Your task to perform on an android device: toggle translation in the chrome app Image 0: 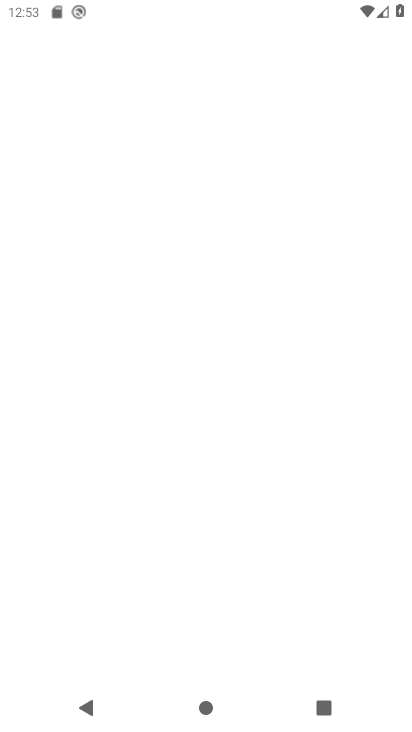
Step 0: drag from (225, 585) to (196, 180)
Your task to perform on an android device: toggle translation in the chrome app Image 1: 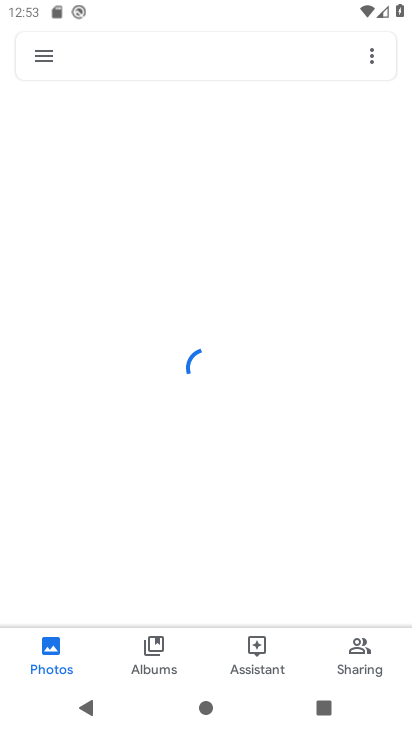
Step 1: press home button
Your task to perform on an android device: toggle translation in the chrome app Image 2: 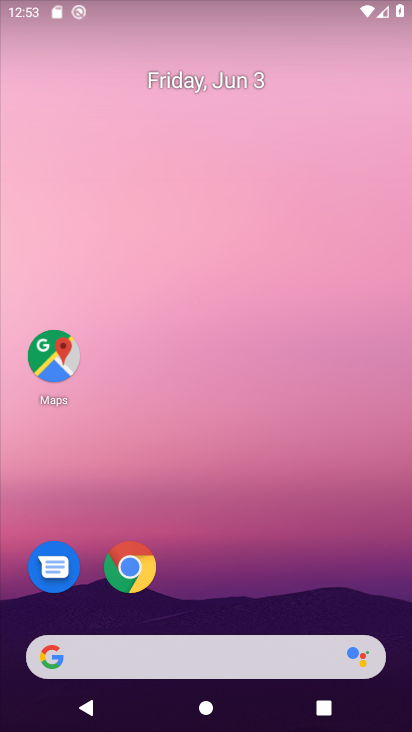
Step 2: drag from (216, 611) to (215, 293)
Your task to perform on an android device: toggle translation in the chrome app Image 3: 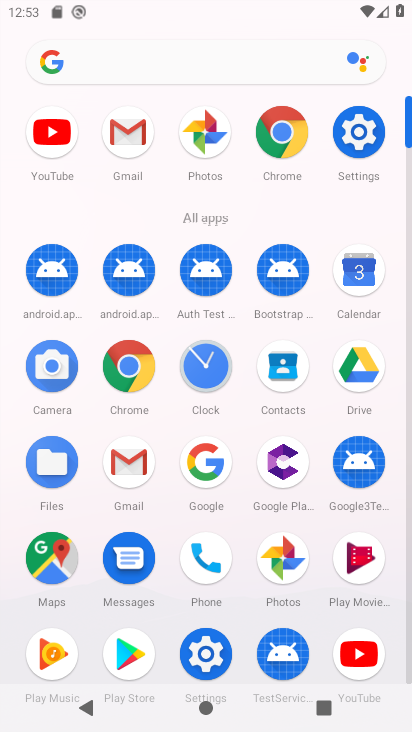
Step 3: click (282, 123)
Your task to perform on an android device: toggle translation in the chrome app Image 4: 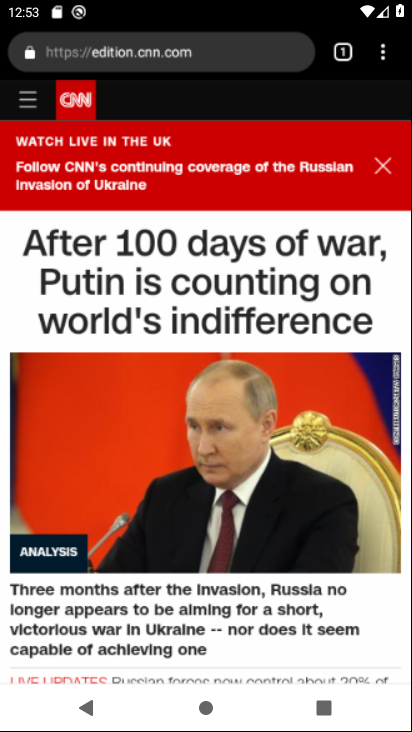
Step 4: click (390, 46)
Your task to perform on an android device: toggle translation in the chrome app Image 5: 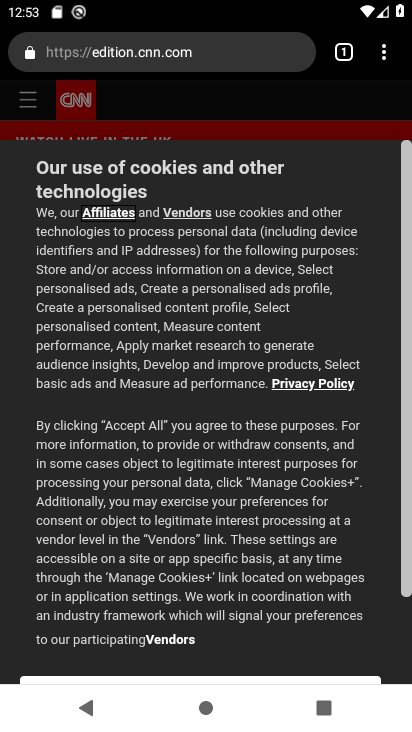
Step 5: click (391, 41)
Your task to perform on an android device: toggle translation in the chrome app Image 6: 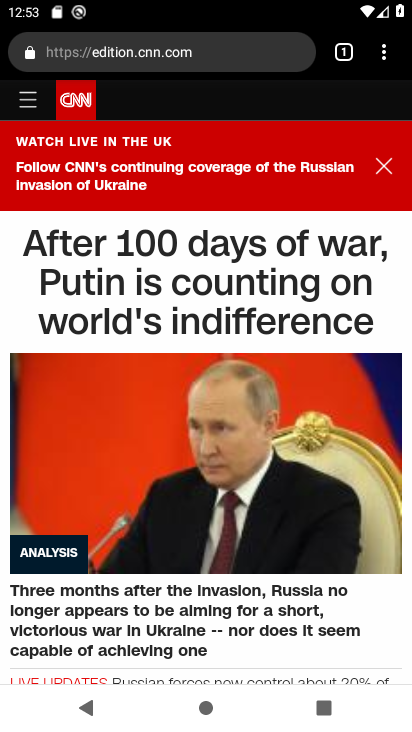
Step 6: click (378, 52)
Your task to perform on an android device: toggle translation in the chrome app Image 7: 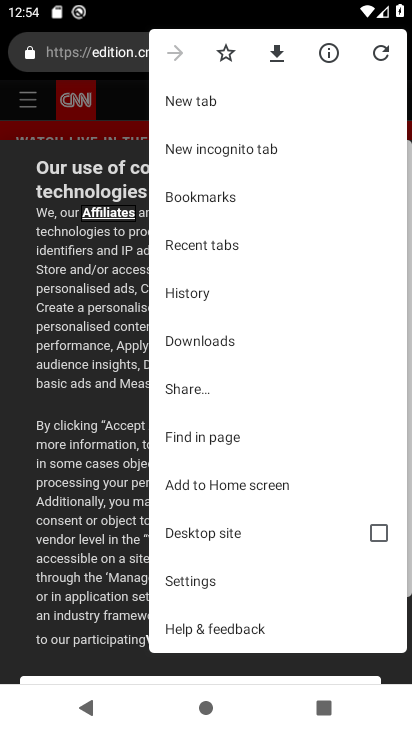
Step 7: click (211, 572)
Your task to perform on an android device: toggle translation in the chrome app Image 8: 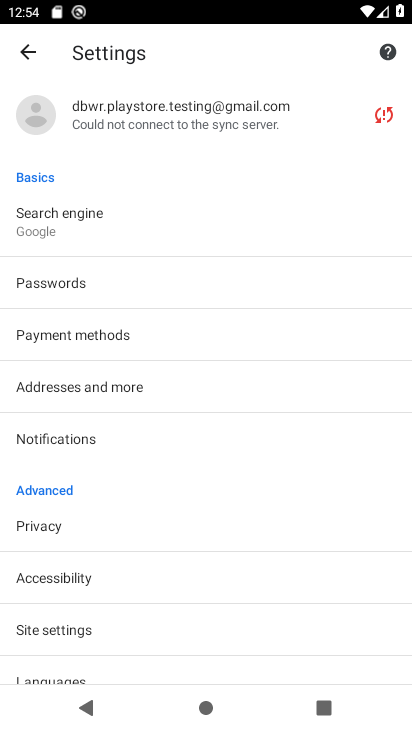
Step 8: drag from (168, 552) to (211, 223)
Your task to perform on an android device: toggle translation in the chrome app Image 9: 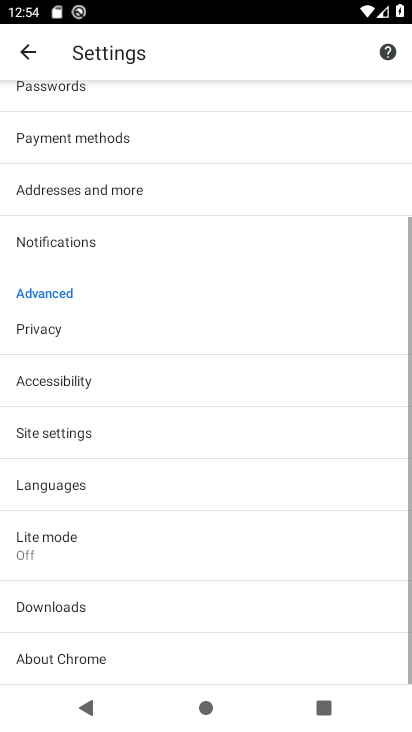
Step 9: click (138, 474)
Your task to perform on an android device: toggle translation in the chrome app Image 10: 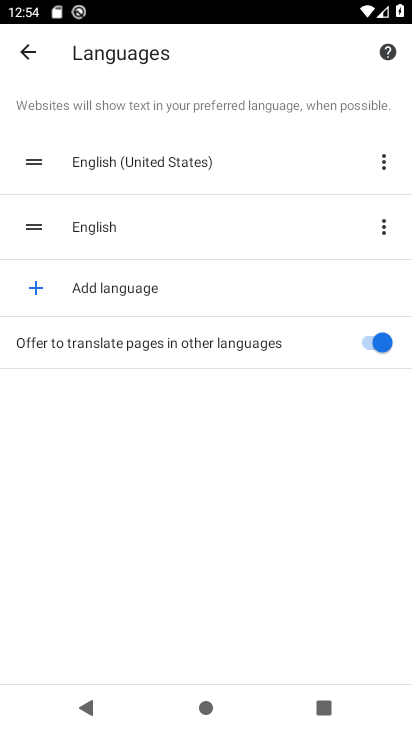
Step 10: click (366, 336)
Your task to perform on an android device: toggle translation in the chrome app Image 11: 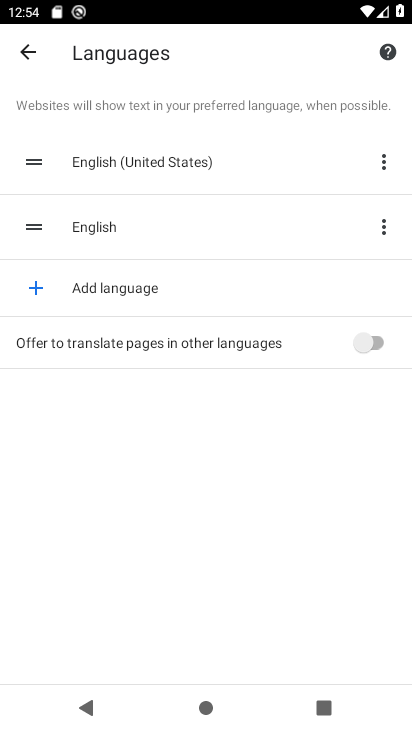
Step 11: task complete